Your task to perform on an android device: Go to Yahoo.com Image 0: 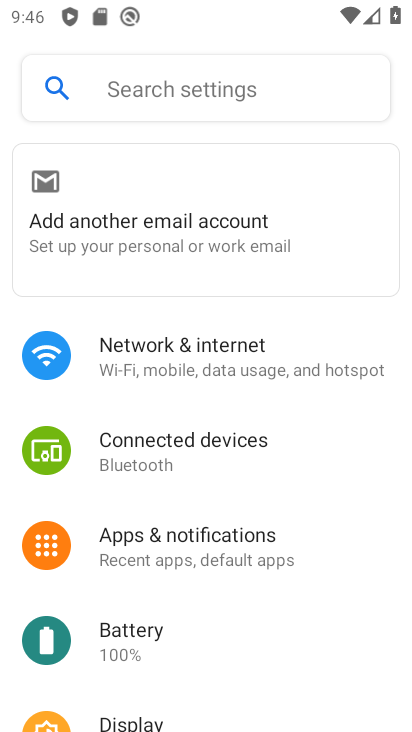
Step 0: press home button
Your task to perform on an android device: Go to Yahoo.com Image 1: 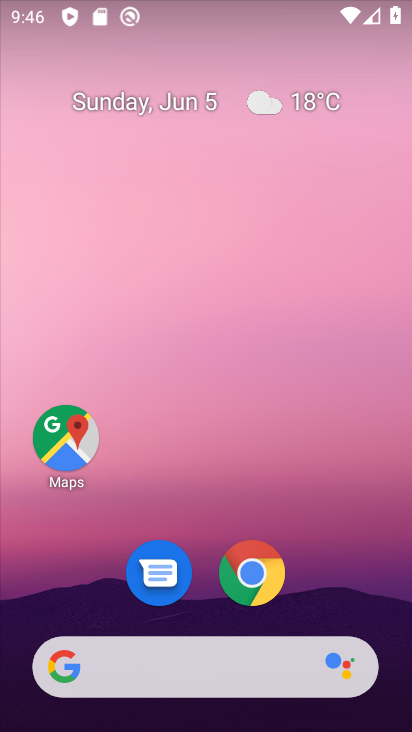
Step 1: drag from (217, 670) to (205, 410)
Your task to perform on an android device: Go to Yahoo.com Image 2: 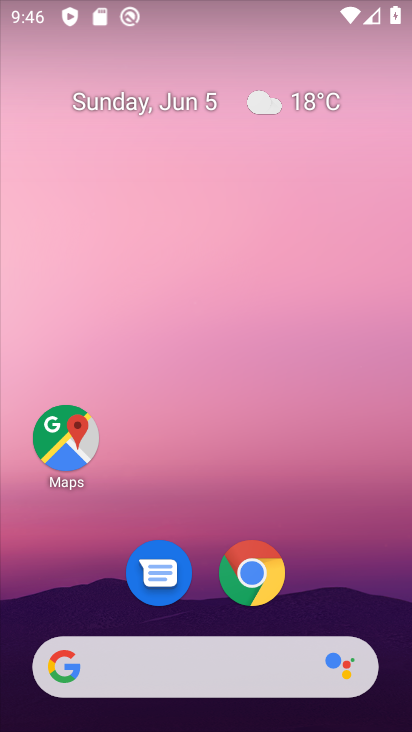
Step 2: drag from (147, 639) to (163, 230)
Your task to perform on an android device: Go to Yahoo.com Image 3: 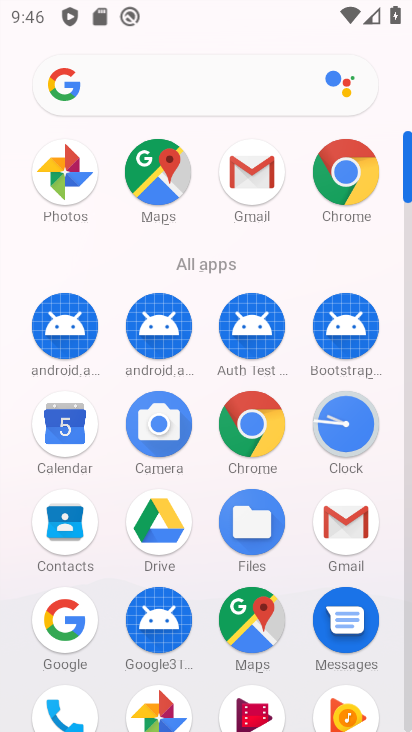
Step 3: click (235, 423)
Your task to perform on an android device: Go to Yahoo.com Image 4: 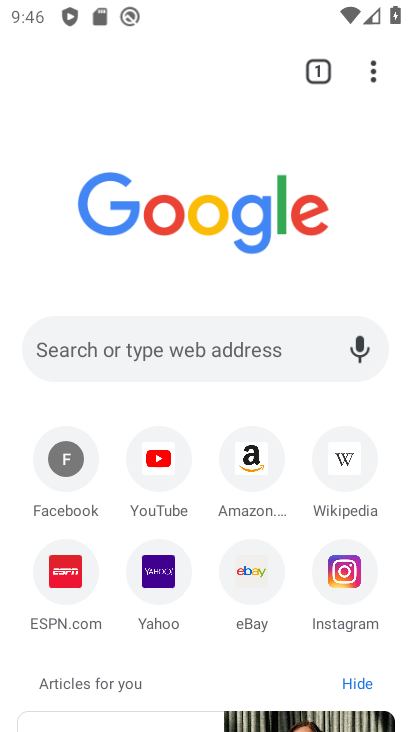
Step 4: click (128, 586)
Your task to perform on an android device: Go to Yahoo.com Image 5: 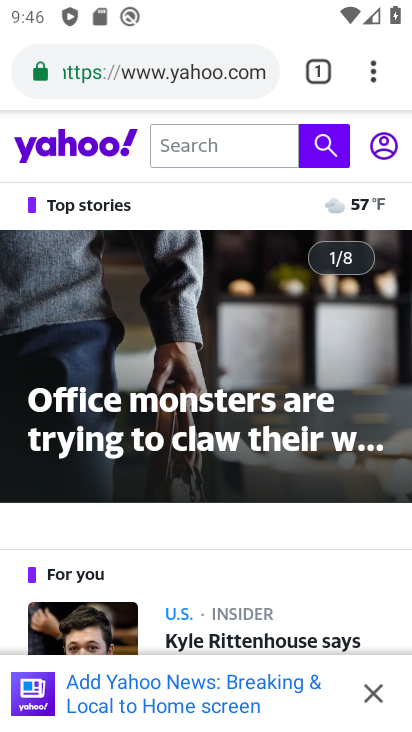
Step 5: task complete